Your task to perform on an android device: Open Amazon Image 0: 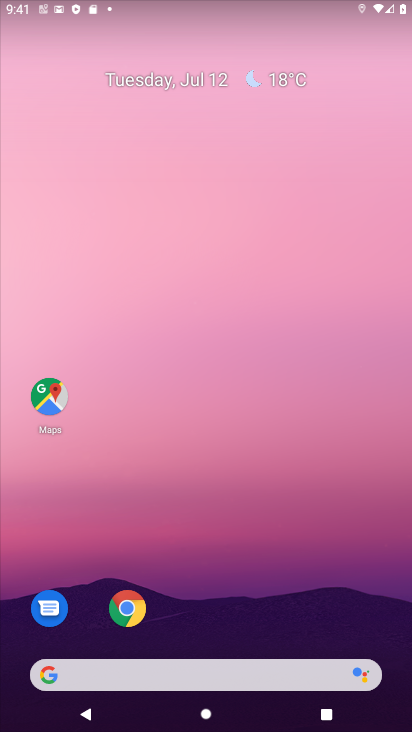
Step 0: click (122, 611)
Your task to perform on an android device: Open Amazon Image 1: 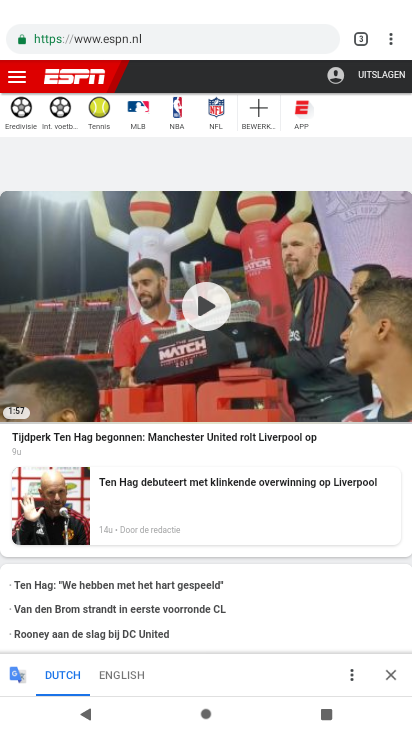
Step 1: click (393, 39)
Your task to perform on an android device: Open Amazon Image 2: 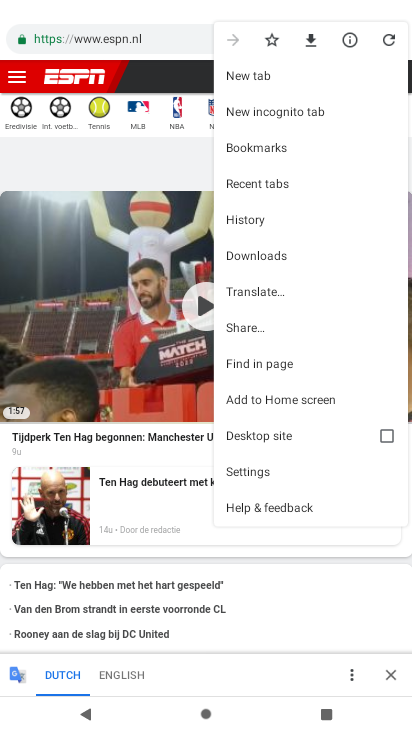
Step 2: click (254, 76)
Your task to perform on an android device: Open Amazon Image 3: 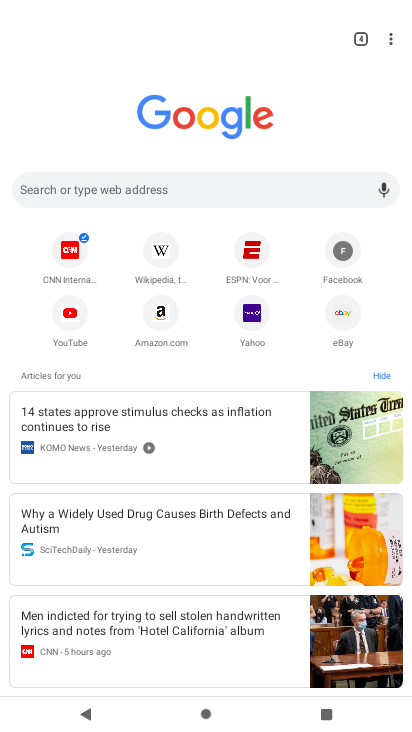
Step 3: click (155, 308)
Your task to perform on an android device: Open Amazon Image 4: 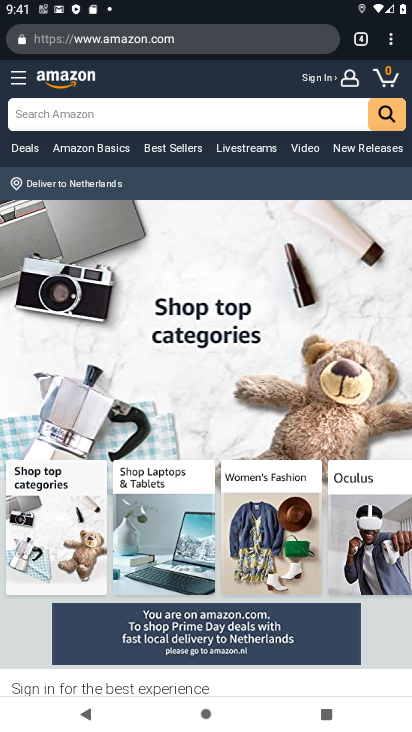
Step 4: task complete